Your task to perform on an android device: Go to location settings Image 0: 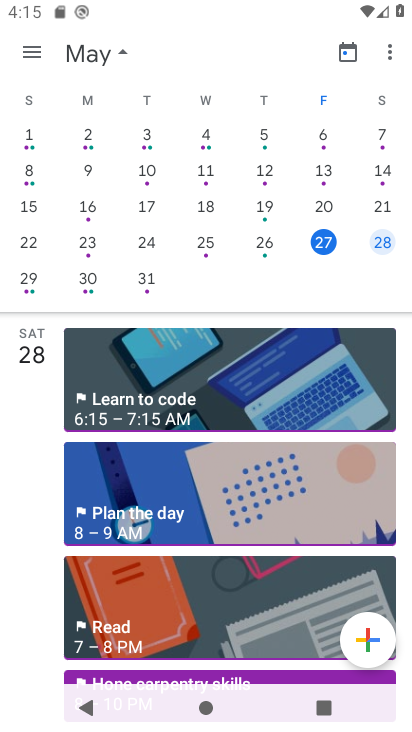
Step 0: press home button
Your task to perform on an android device: Go to location settings Image 1: 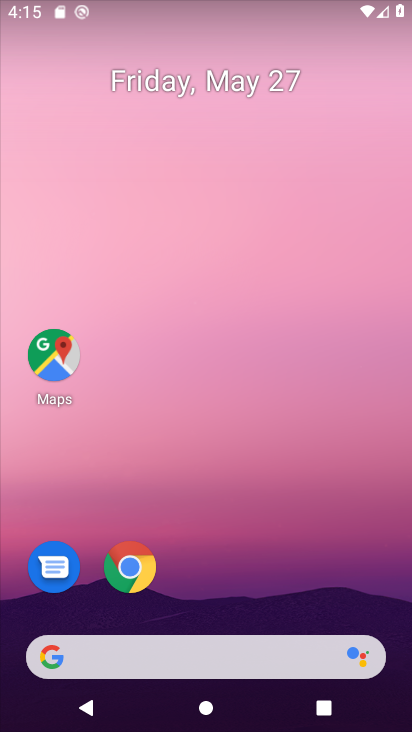
Step 1: drag from (254, 603) to (229, 33)
Your task to perform on an android device: Go to location settings Image 2: 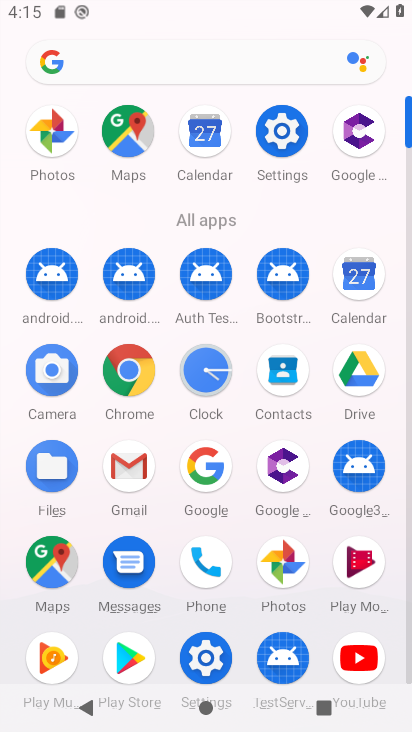
Step 2: click (278, 135)
Your task to perform on an android device: Go to location settings Image 3: 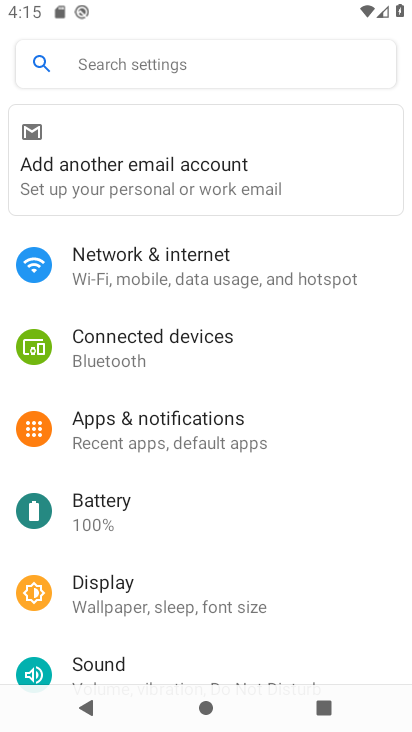
Step 3: drag from (198, 632) to (221, 177)
Your task to perform on an android device: Go to location settings Image 4: 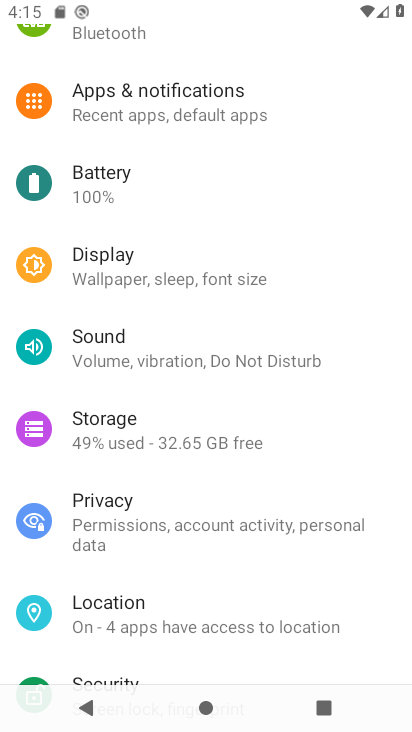
Step 4: click (178, 616)
Your task to perform on an android device: Go to location settings Image 5: 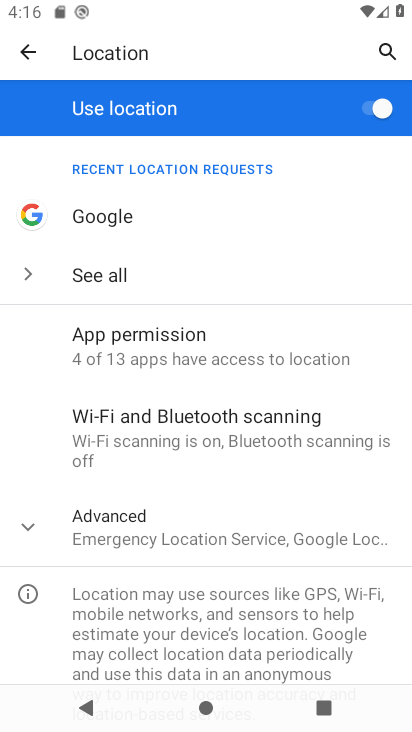
Step 5: task complete